Your task to perform on an android device: Search for vegetarian restaurants on Maps Image 0: 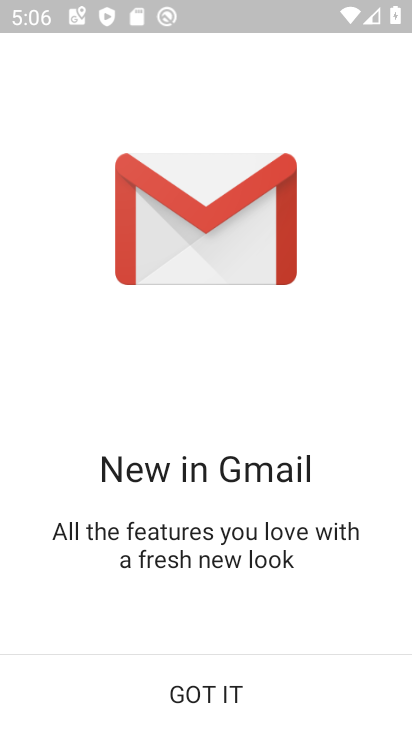
Step 0: drag from (253, 541) to (252, 149)
Your task to perform on an android device: Search for vegetarian restaurants on Maps Image 1: 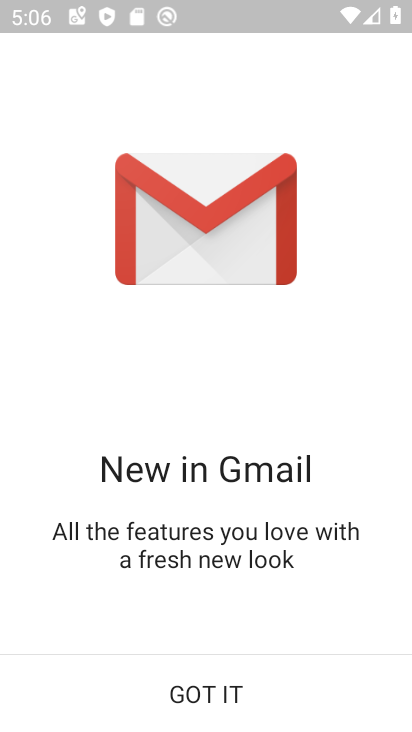
Step 1: press back button
Your task to perform on an android device: Search for vegetarian restaurants on Maps Image 2: 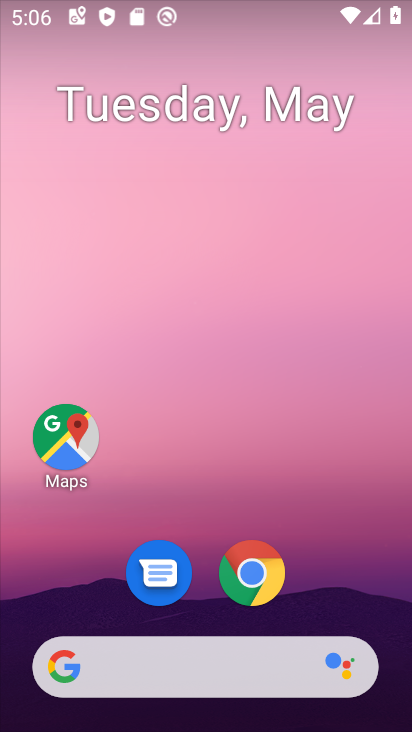
Step 2: click (63, 435)
Your task to perform on an android device: Search for vegetarian restaurants on Maps Image 3: 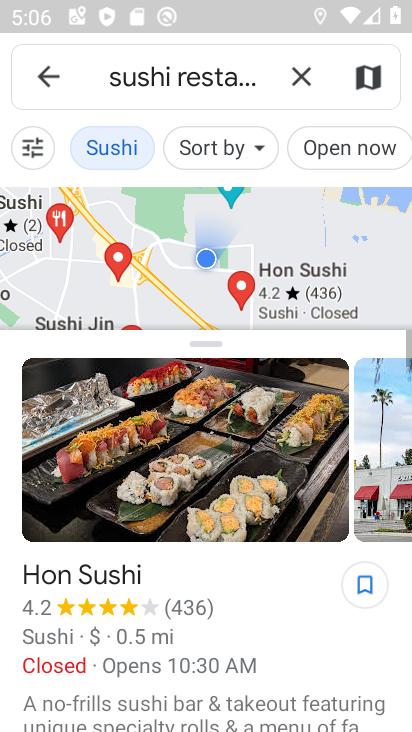
Step 3: click (294, 74)
Your task to perform on an android device: Search for vegetarian restaurants on Maps Image 4: 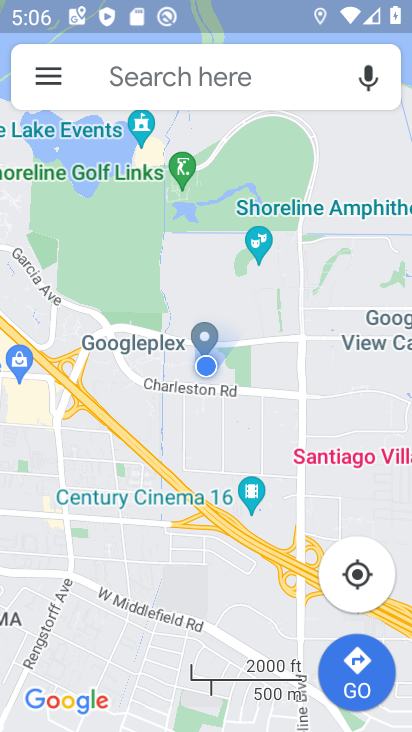
Step 4: click (167, 79)
Your task to perform on an android device: Search for vegetarian restaurants on Maps Image 5: 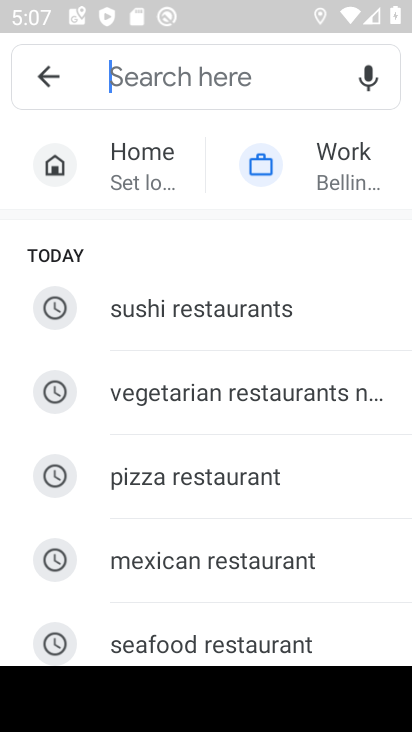
Step 5: click (134, 392)
Your task to perform on an android device: Search for vegetarian restaurants on Maps Image 6: 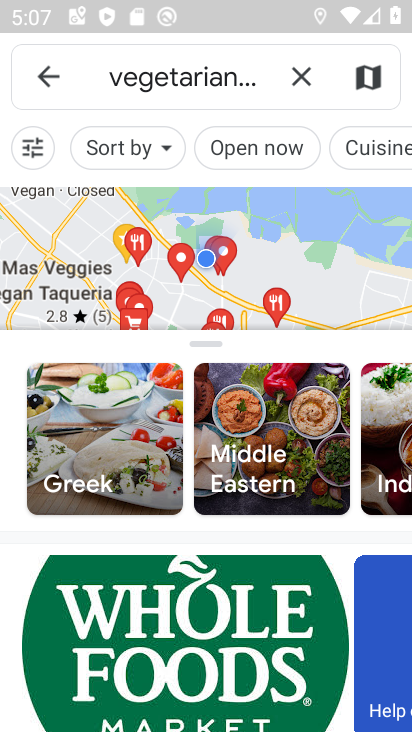
Step 6: task complete